Your task to perform on an android device: clear history in the chrome app Image 0: 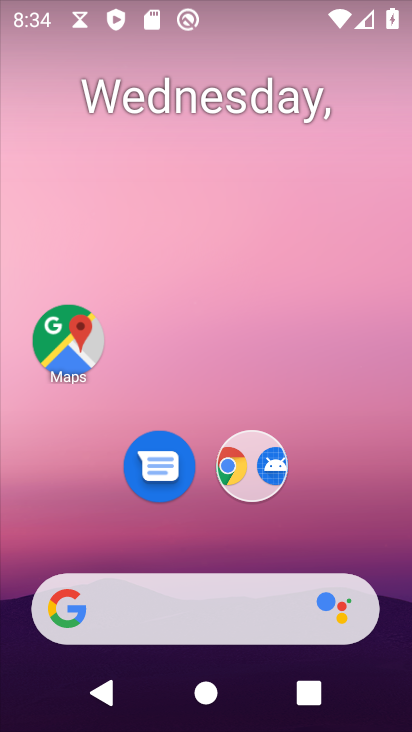
Step 0: drag from (334, 529) to (302, 157)
Your task to perform on an android device: clear history in the chrome app Image 1: 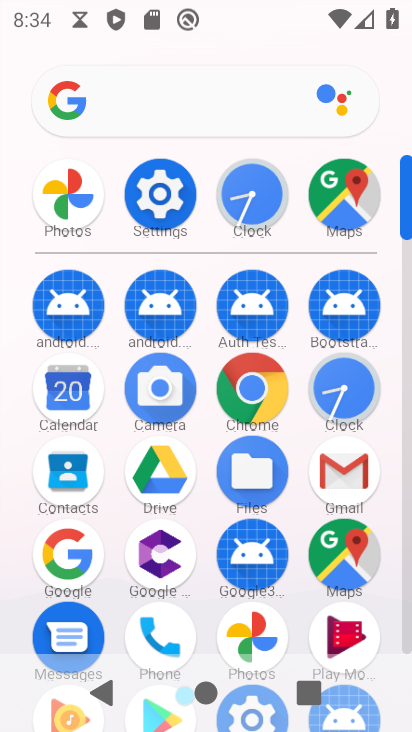
Step 1: click (233, 393)
Your task to perform on an android device: clear history in the chrome app Image 2: 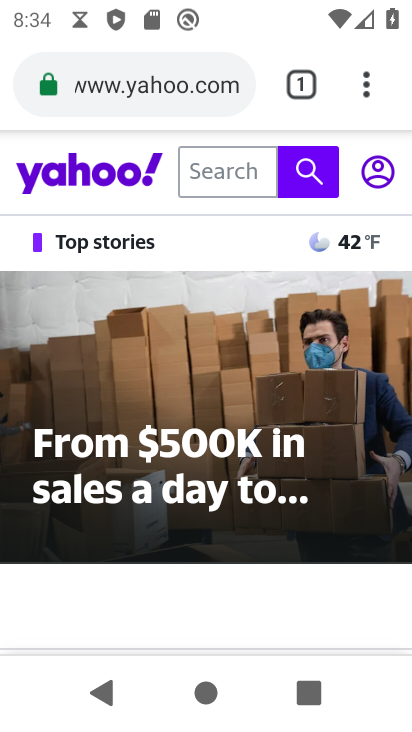
Step 2: click (359, 87)
Your task to perform on an android device: clear history in the chrome app Image 3: 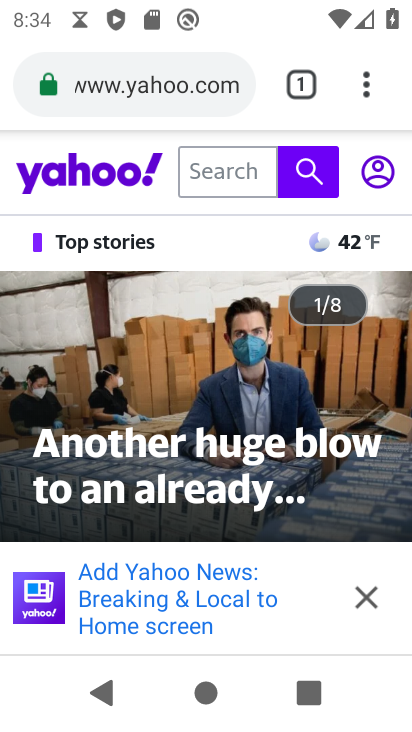
Step 3: click (359, 110)
Your task to perform on an android device: clear history in the chrome app Image 4: 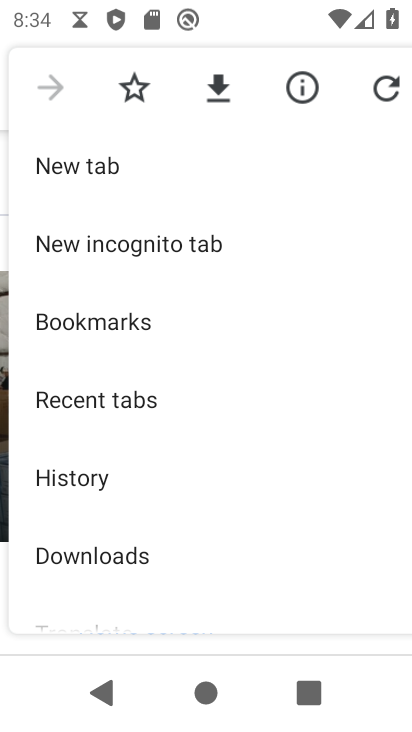
Step 4: click (160, 477)
Your task to perform on an android device: clear history in the chrome app Image 5: 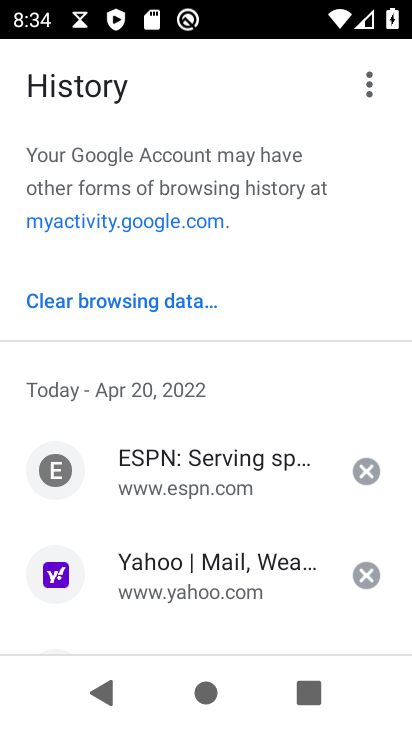
Step 5: click (106, 308)
Your task to perform on an android device: clear history in the chrome app Image 6: 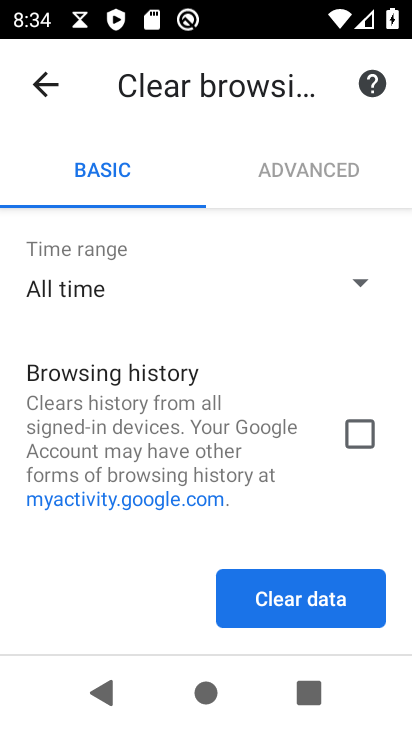
Step 6: click (146, 435)
Your task to perform on an android device: clear history in the chrome app Image 7: 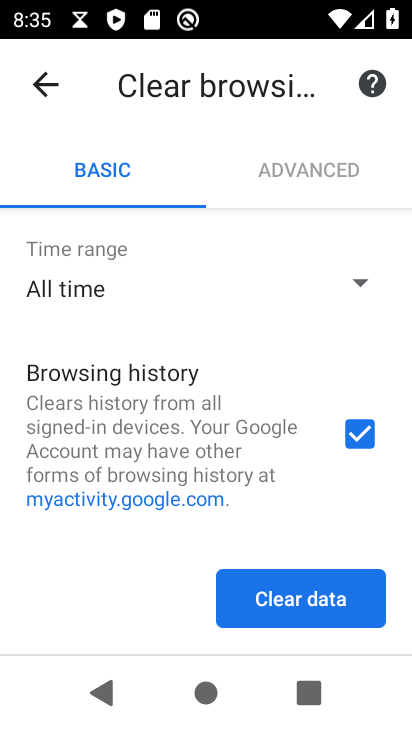
Step 7: click (302, 593)
Your task to perform on an android device: clear history in the chrome app Image 8: 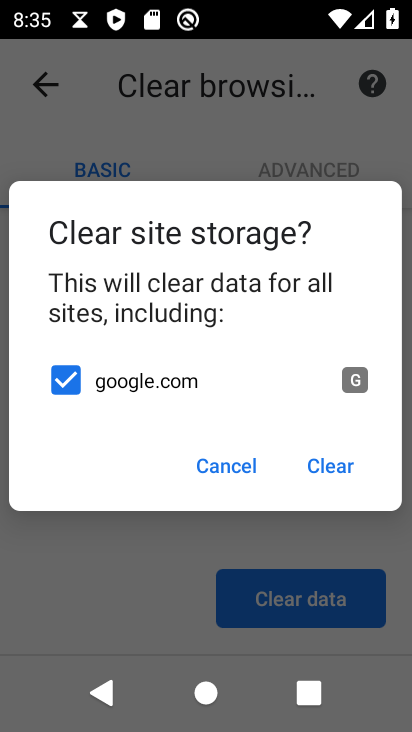
Step 8: click (339, 464)
Your task to perform on an android device: clear history in the chrome app Image 9: 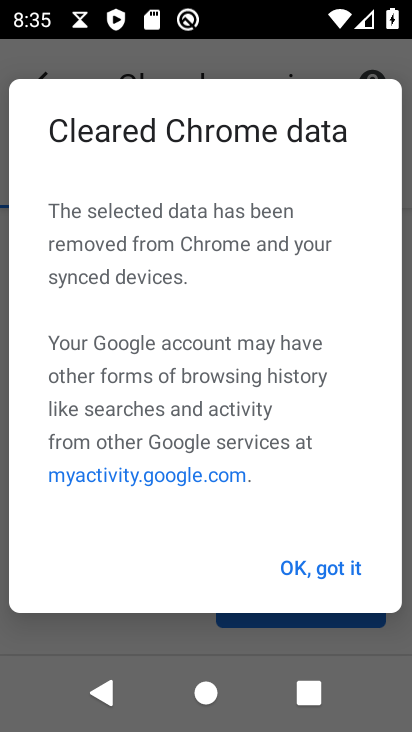
Step 9: task complete